Your task to perform on an android device: Go to Amazon Image 0: 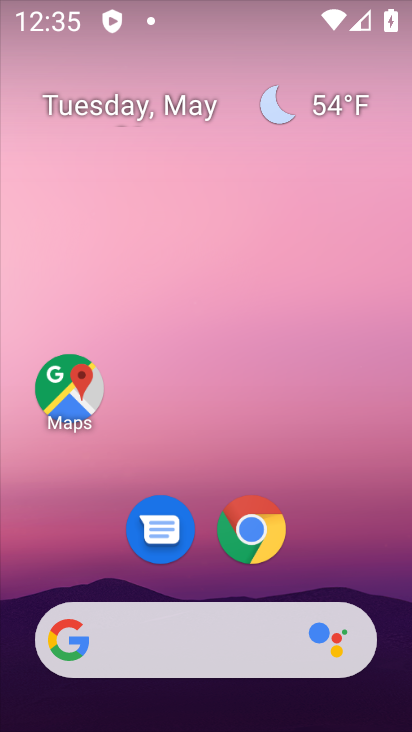
Step 0: click (249, 528)
Your task to perform on an android device: Go to Amazon Image 1: 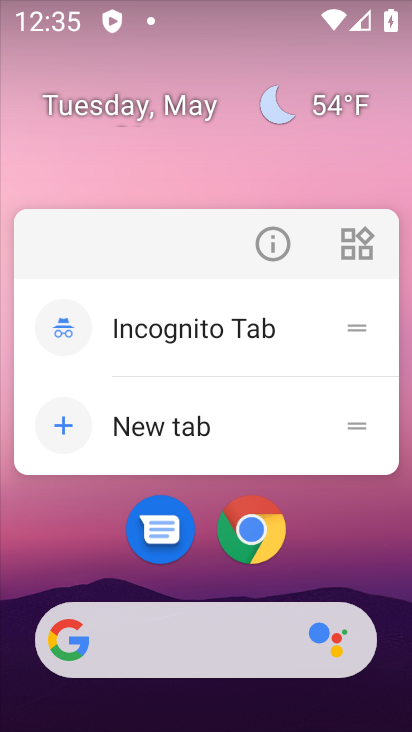
Step 1: click (245, 524)
Your task to perform on an android device: Go to Amazon Image 2: 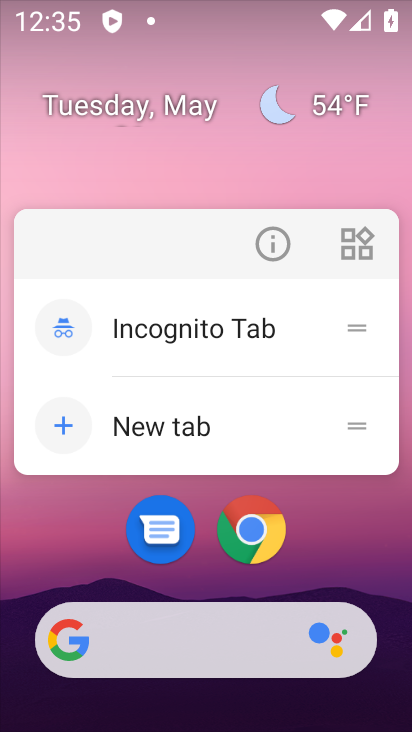
Step 2: click (245, 522)
Your task to perform on an android device: Go to Amazon Image 3: 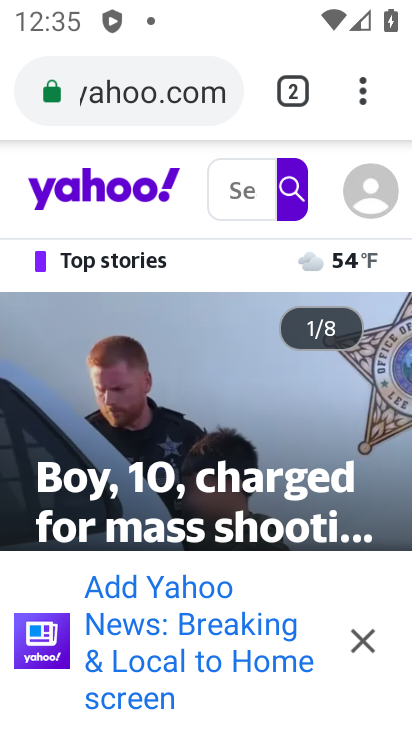
Step 3: click (374, 79)
Your task to perform on an android device: Go to Amazon Image 4: 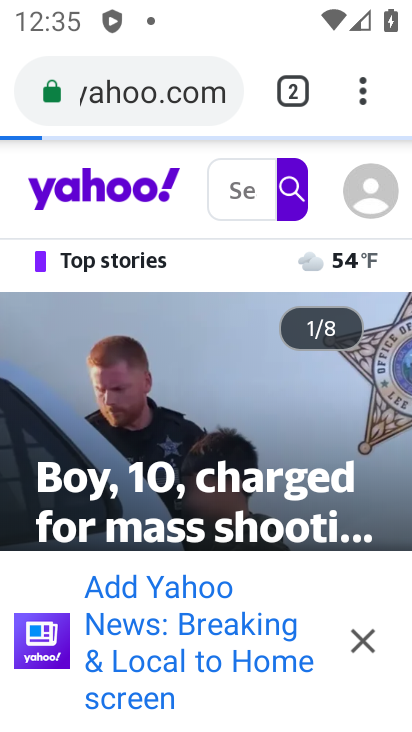
Step 4: click (372, 82)
Your task to perform on an android device: Go to Amazon Image 5: 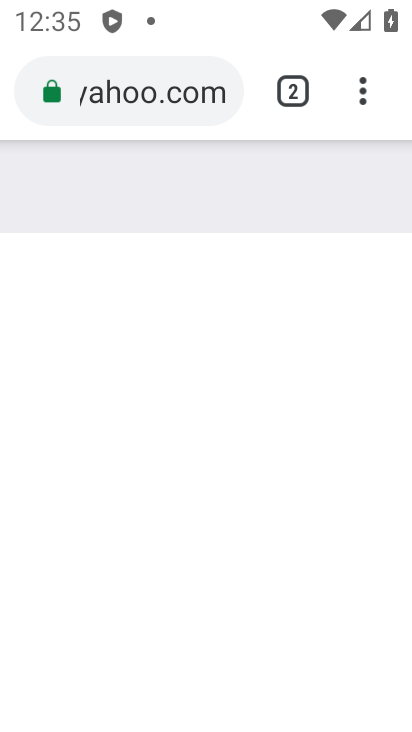
Step 5: click (364, 79)
Your task to perform on an android device: Go to Amazon Image 6: 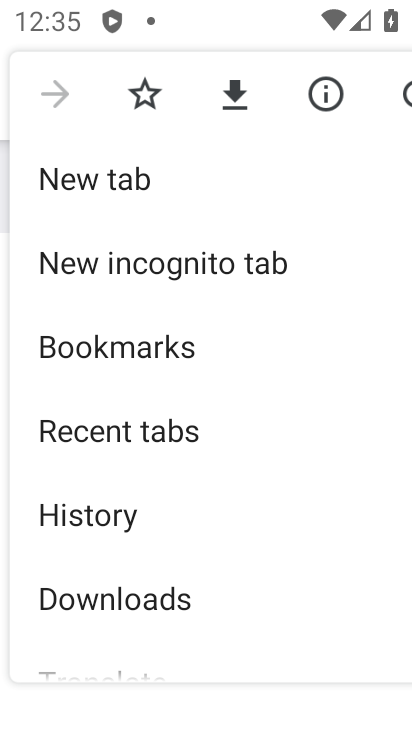
Step 6: click (77, 191)
Your task to perform on an android device: Go to Amazon Image 7: 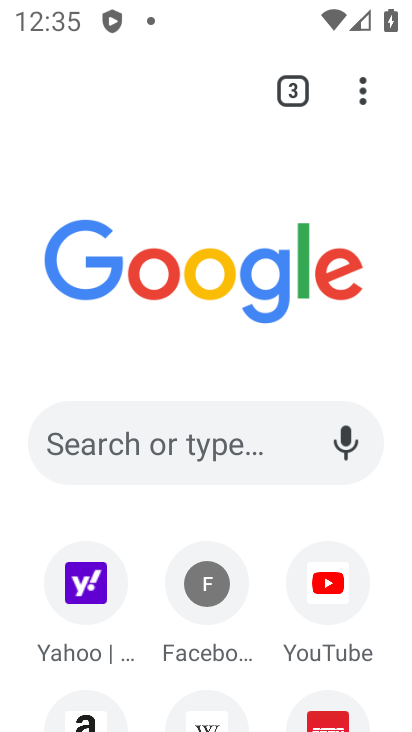
Step 7: drag from (260, 655) to (267, 394)
Your task to perform on an android device: Go to Amazon Image 8: 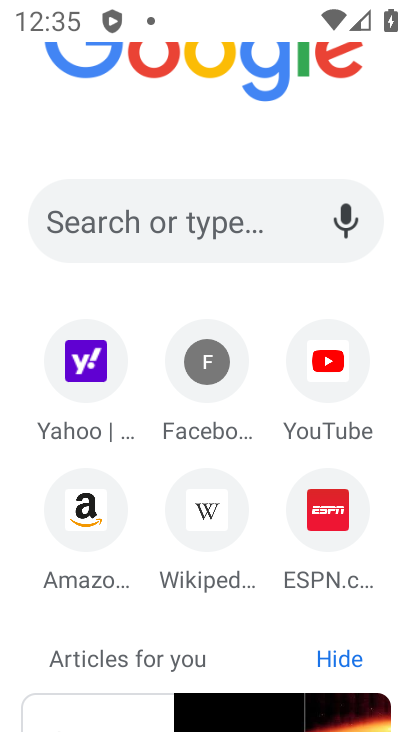
Step 8: click (78, 515)
Your task to perform on an android device: Go to Amazon Image 9: 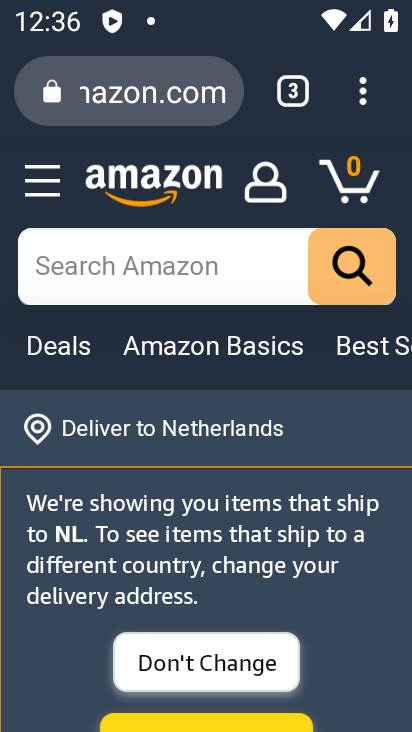
Step 9: task complete